Your task to perform on an android device: empty trash in the gmail app Image 0: 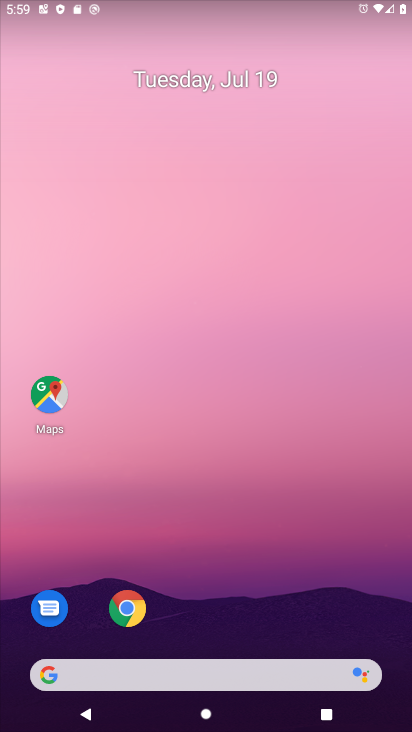
Step 0: drag from (184, 525) to (144, 9)
Your task to perform on an android device: empty trash in the gmail app Image 1: 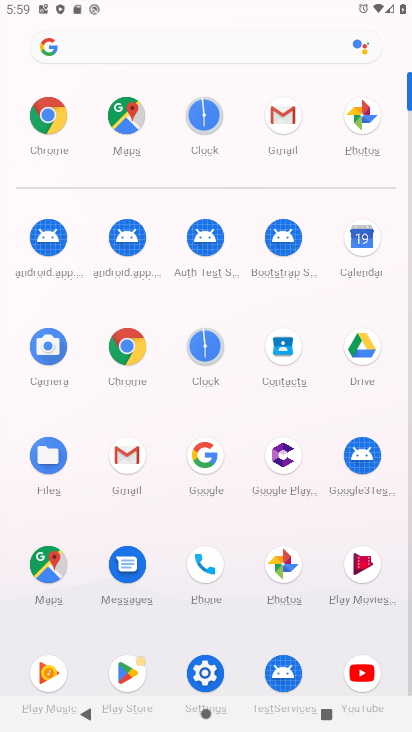
Step 1: click (136, 464)
Your task to perform on an android device: empty trash in the gmail app Image 2: 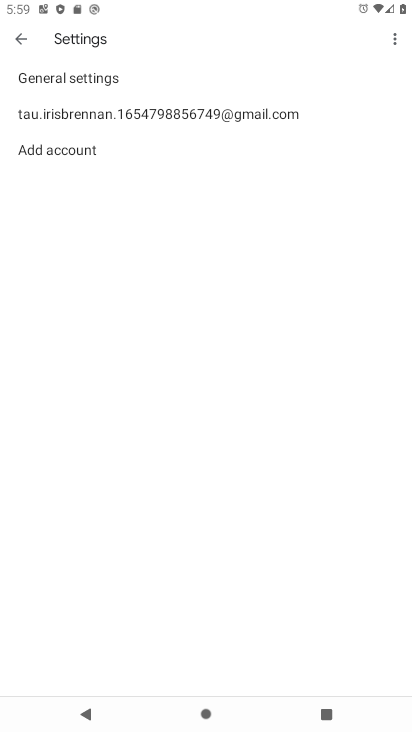
Step 2: press back button
Your task to perform on an android device: empty trash in the gmail app Image 3: 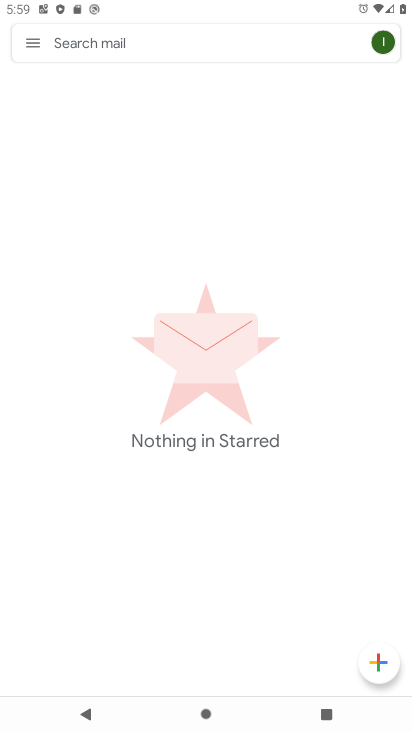
Step 3: click (33, 41)
Your task to perform on an android device: empty trash in the gmail app Image 4: 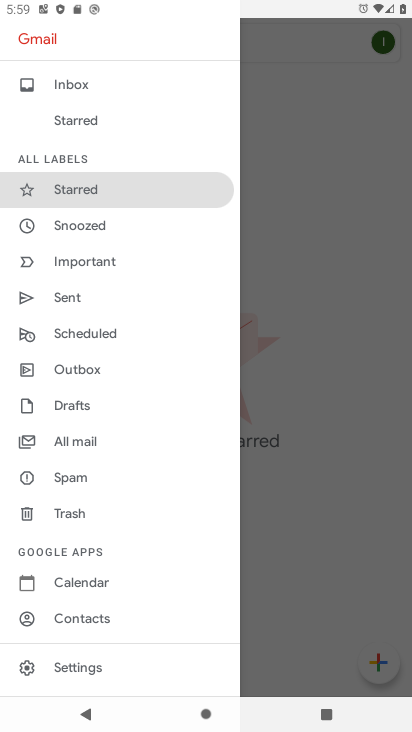
Step 4: click (86, 514)
Your task to perform on an android device: empty trash in the gmail app Image 5: 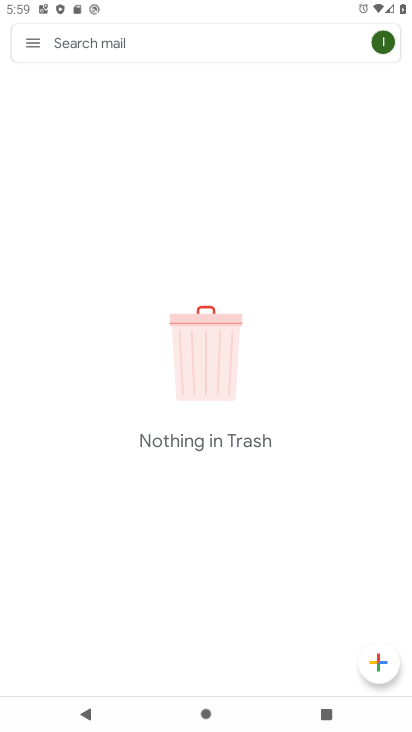
Step 5: task complete